Your task to perform on an android device: Search for sushi restaurants on Maps Image 0: 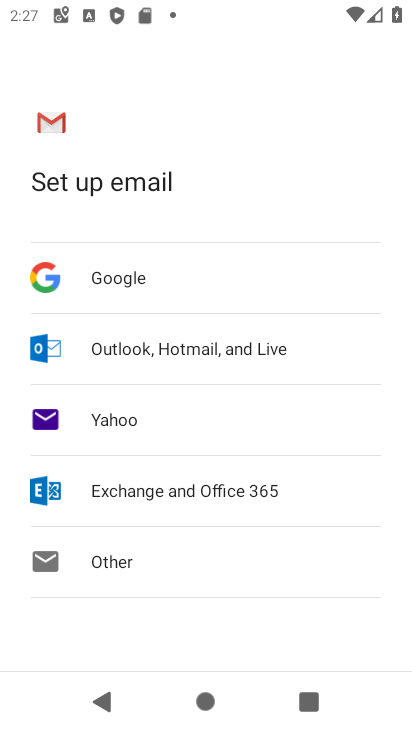
Step 0: press home button
Your task to perform on an android device: Search for sushi restaurants on Maps Image 1: 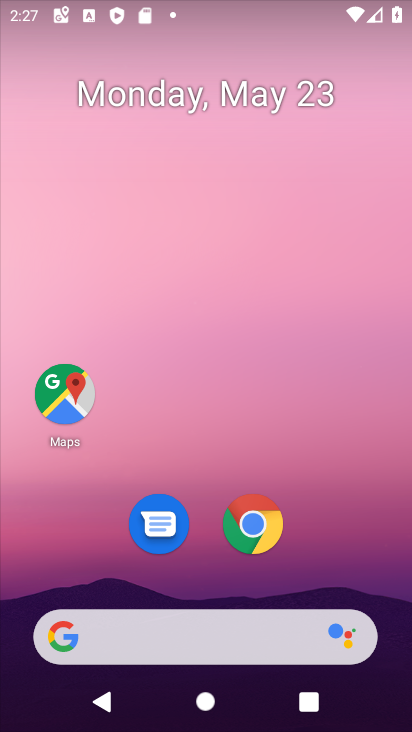
Step 1: click (64, 387)
Your task to perform on an android device: Search for sushi restaurants on Maps Image 2: 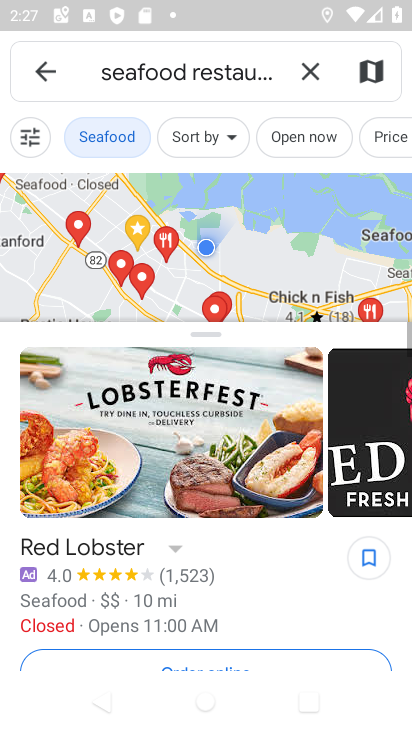
Step 2: click (310, 63)
Your task to perform on an android device: Search for sushi restaurants on Maps Image 3: 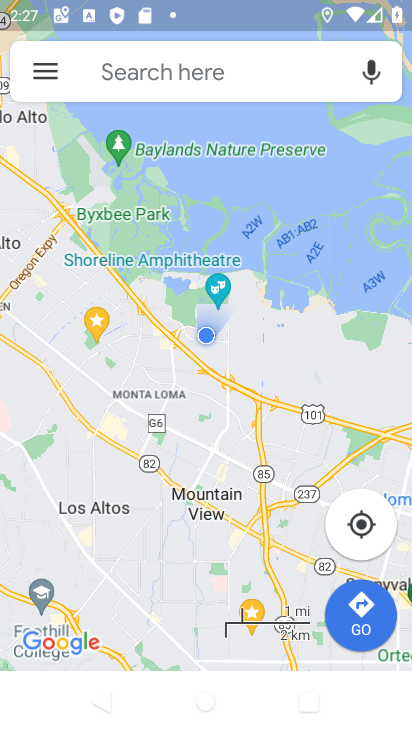
Step 3: click (262, 71)
Your task to perform on an android device: Search for sushi restaurants on Maps Image 4: 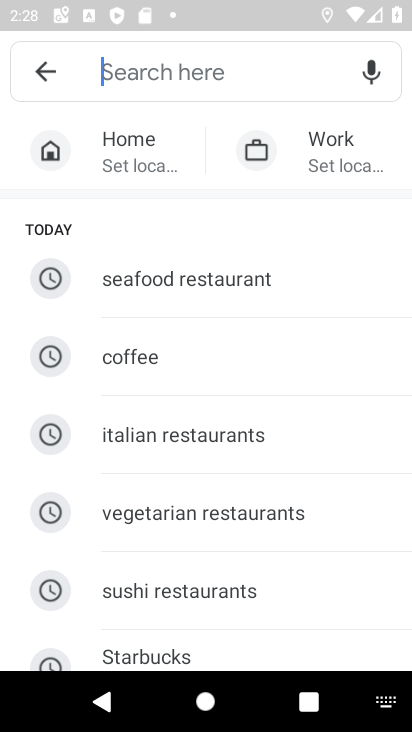
Step 4: click (213, 579)
Your task to perform on an android device: Search for sushi restaurants on Maps Image 5: 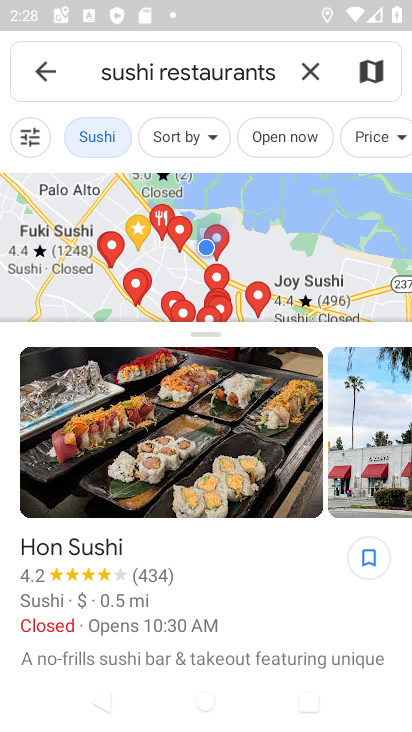
Step 5: task complete